Your task to perform on an android device: open app "Instagram" (install if not already installed) and go to login screen Image 0: 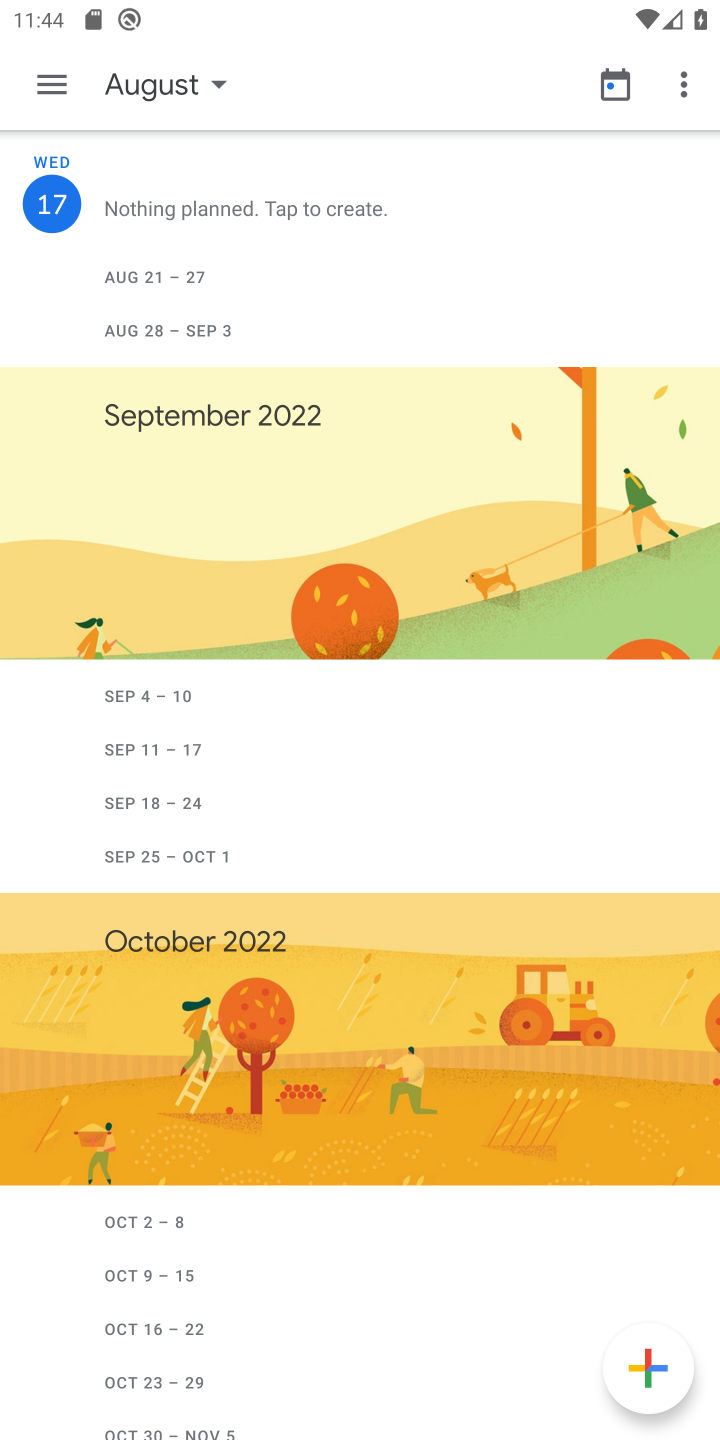
Step 0: press home button
Your task to perform on an android device: open app "Instagram" (install if not already installed) and go to login screen Image 1: 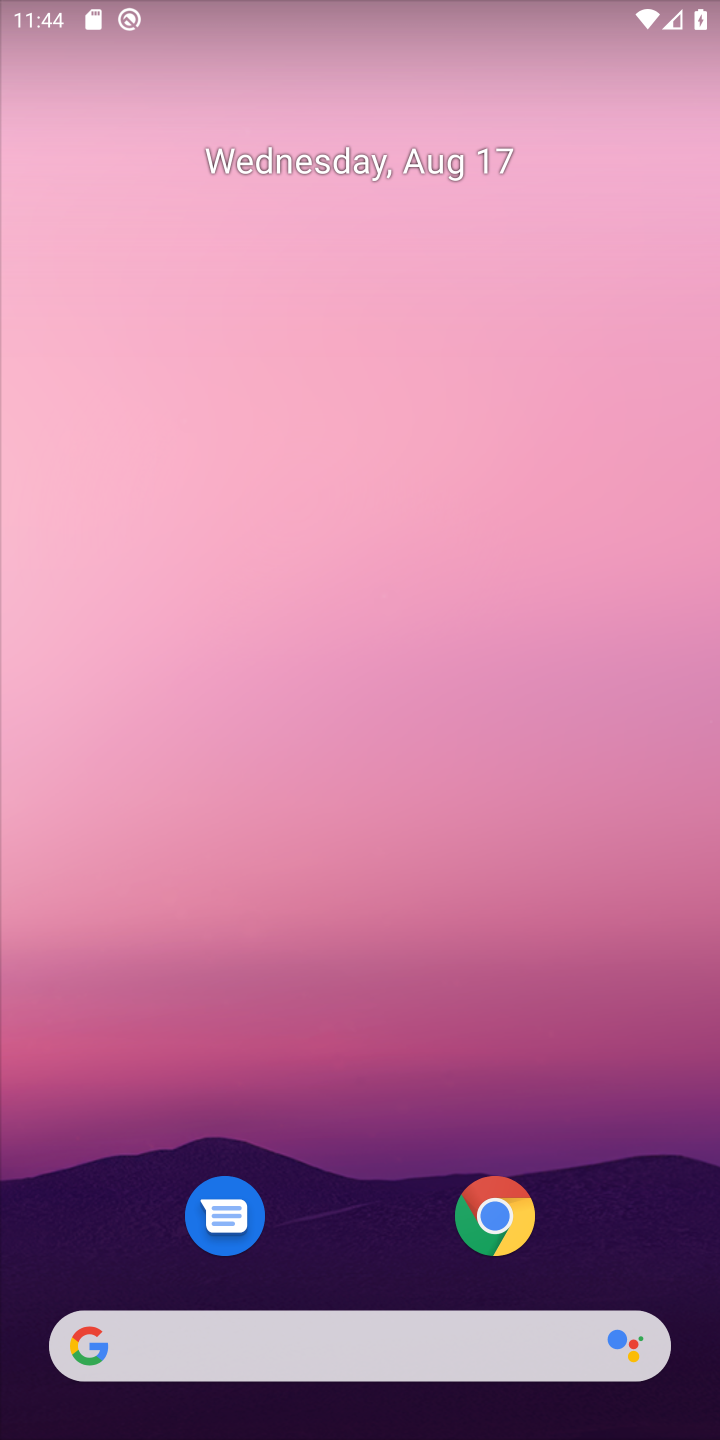
Step 1: drag from (453, 1147) to (378, 259)
Your task to perform on an android device: open app "Instagram" (install if not already installed) and go to login screen Image 2: 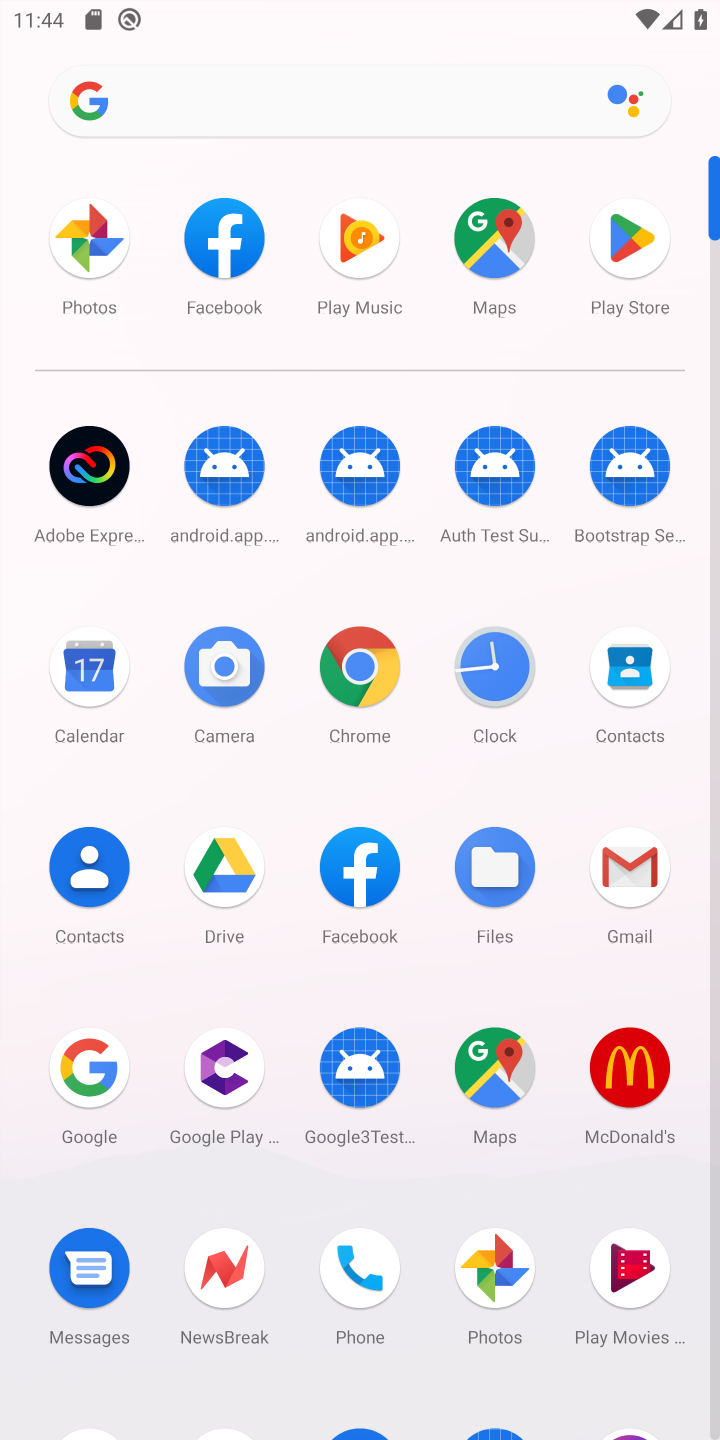
Step 2: click (621, 244)
Your task to perform on an android device: open app "Instagram" (install if not already installed) and go to login screen Image 3: 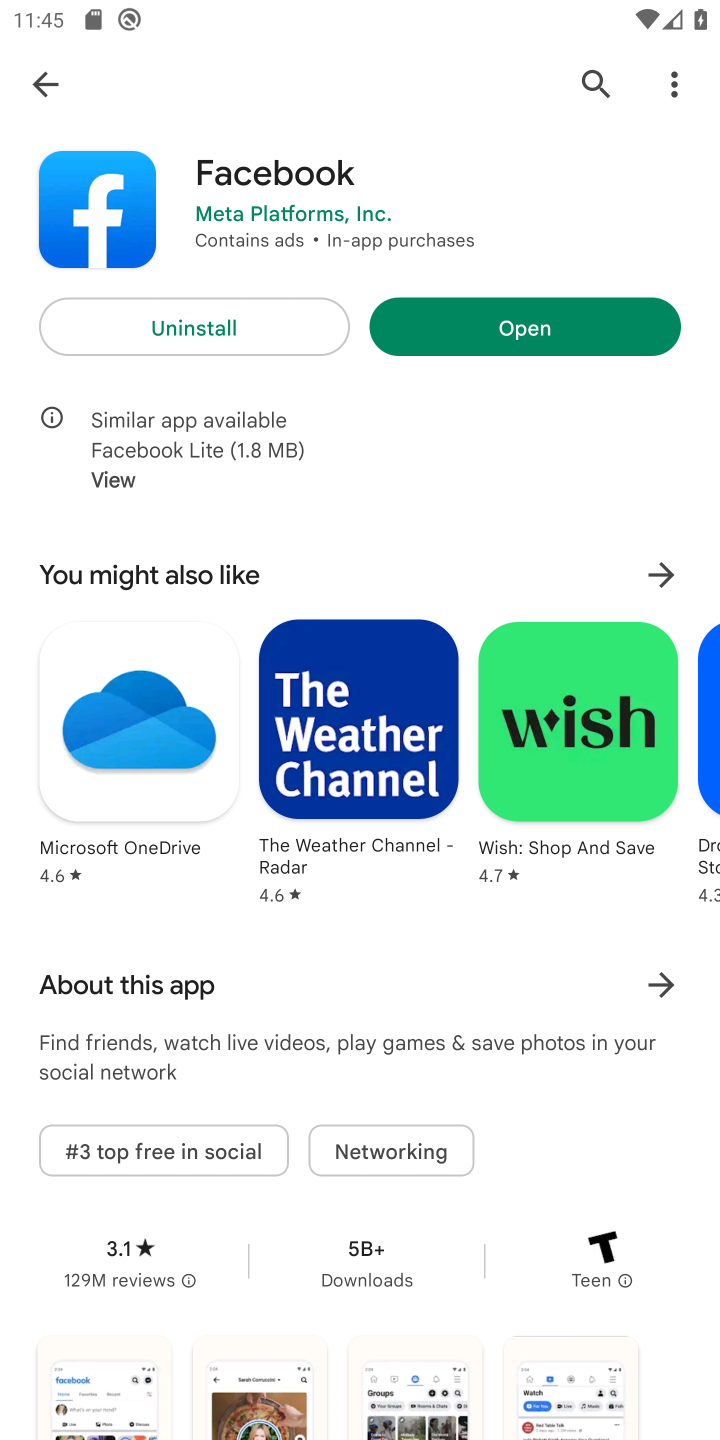
Step 3: click (577, 88)
Your task to perform on an android device: open app "Instagram" (install if not already installed) and go to login screen Image 4: 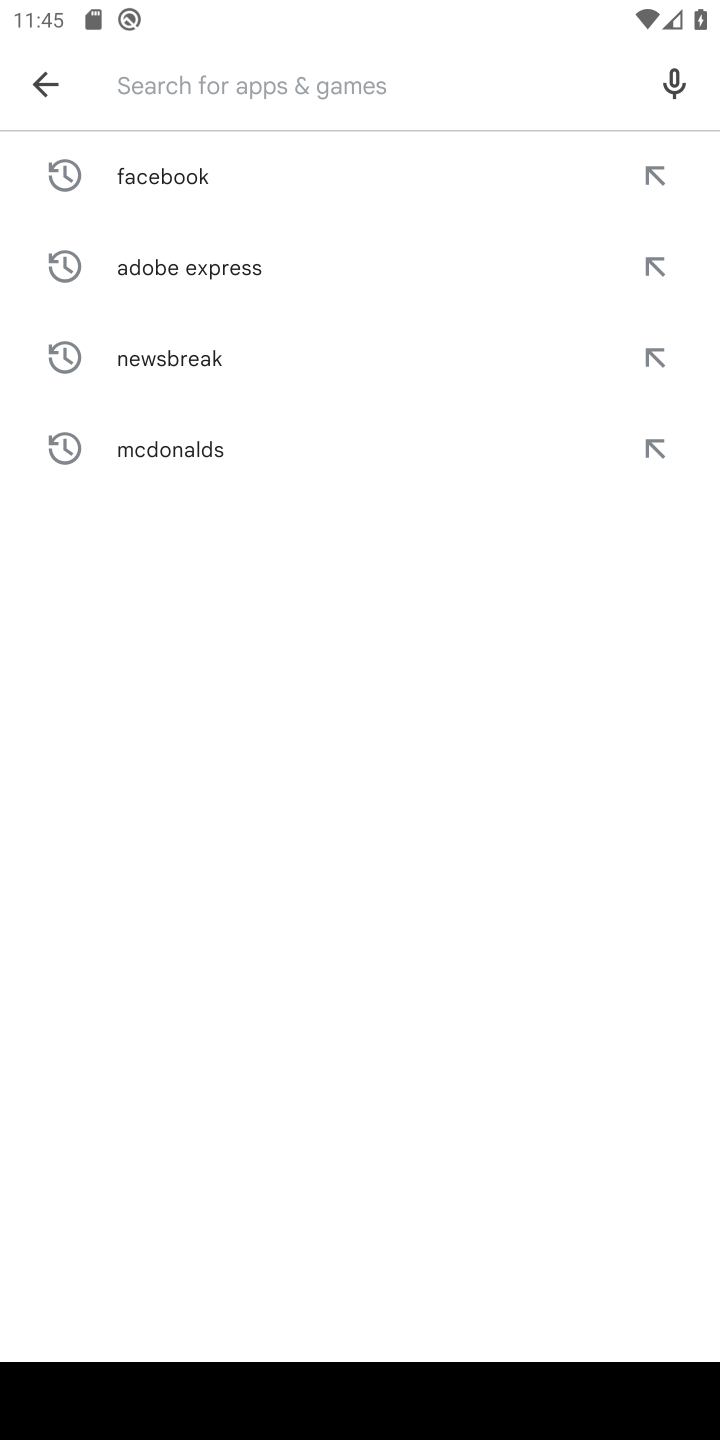
Step 4: type "instagram"
Your task to perform on an android device: open app "Instagram" (install if not already installed) and go to login screen Image 5: 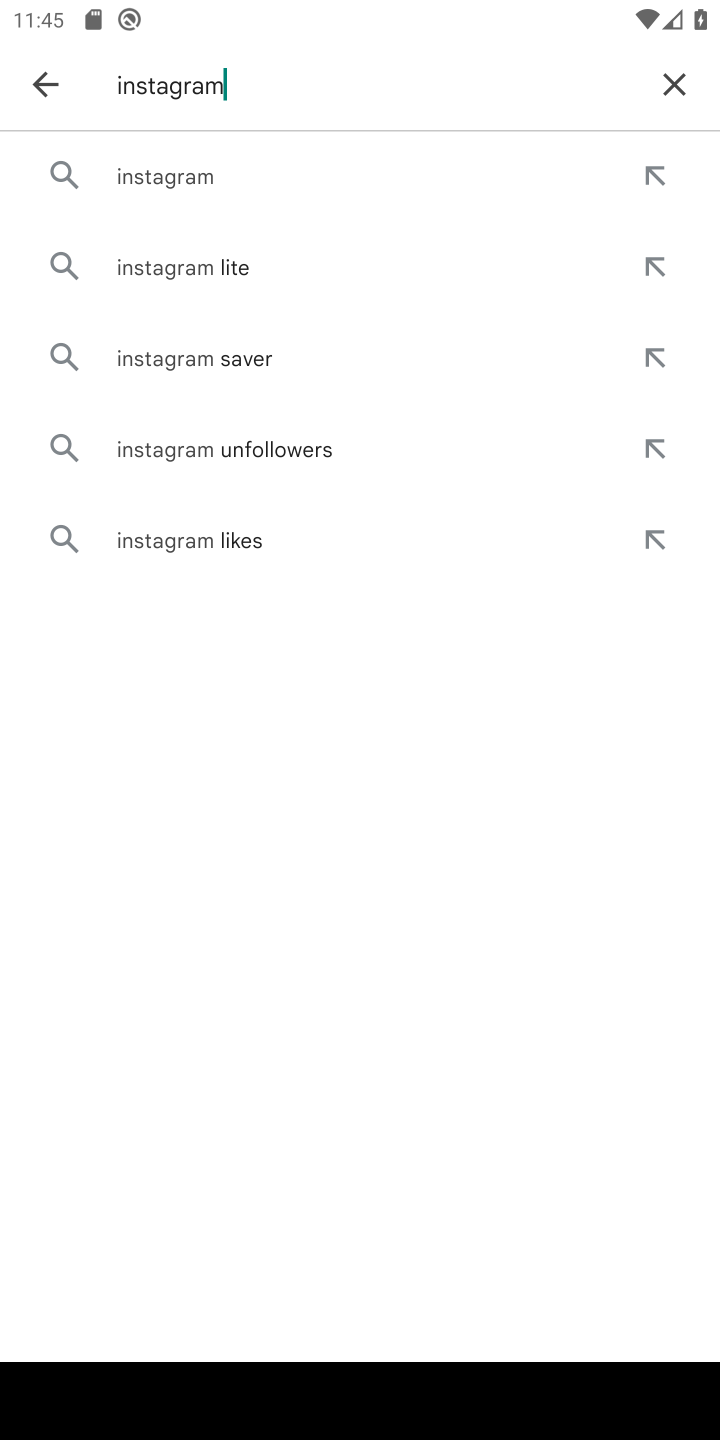
Step 5: click (219, 178)
Your task to perform on an android device: open app "Instagram" (install if not already installed) and go to login screen Image 6: 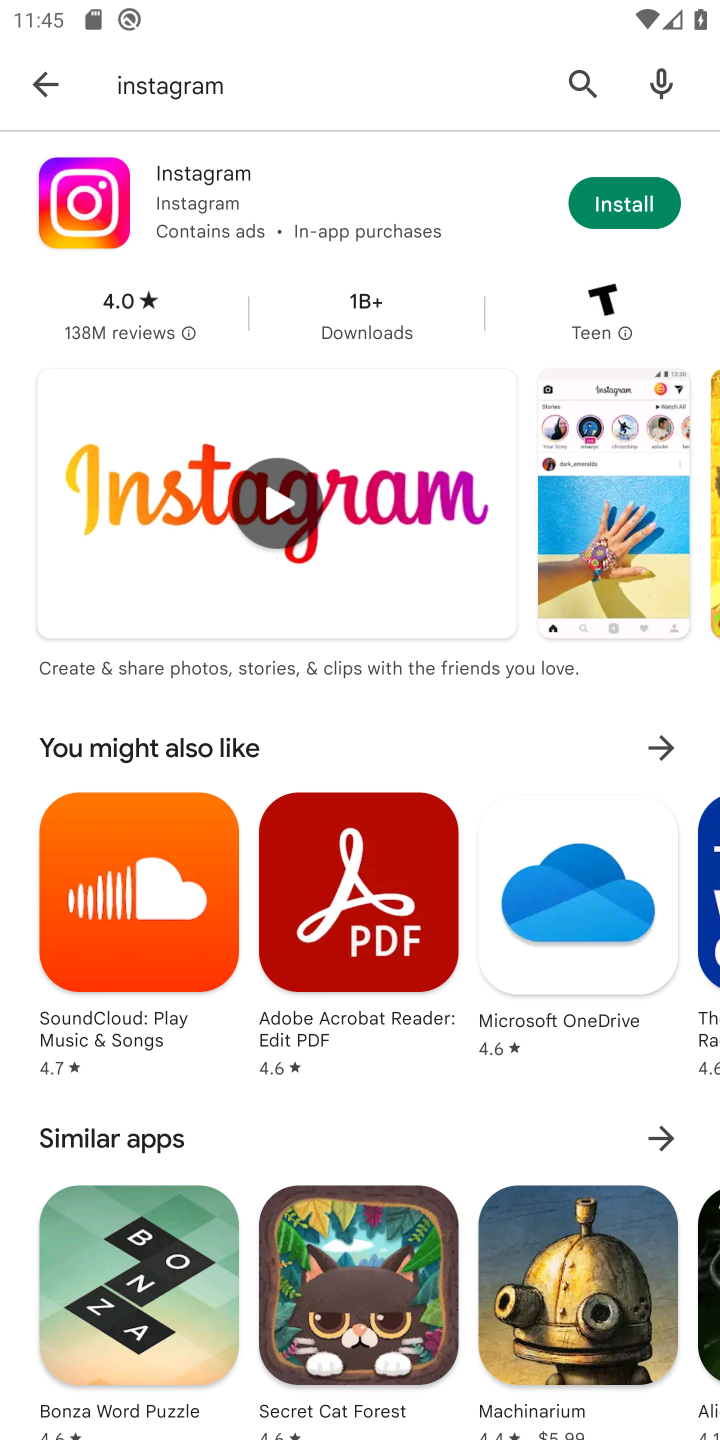
Step 6: click (615, 212)
Your task to perform on an android device: open app "Instagram" (install if not already installed) and go to login screen Image 7: 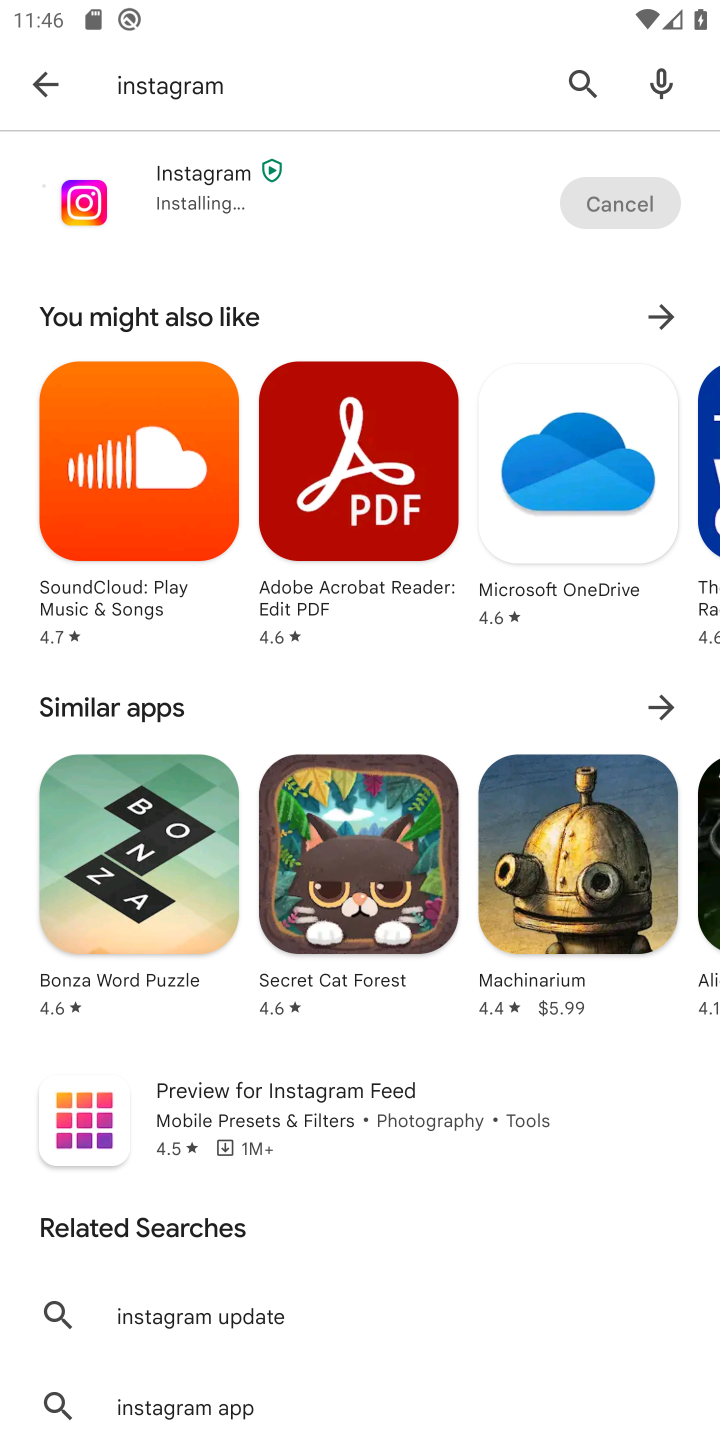
Step 7: click (408, 194)
Your task to perform on an android device: open app "Instagram" (install if not already installed) and go to login screen Image 8: 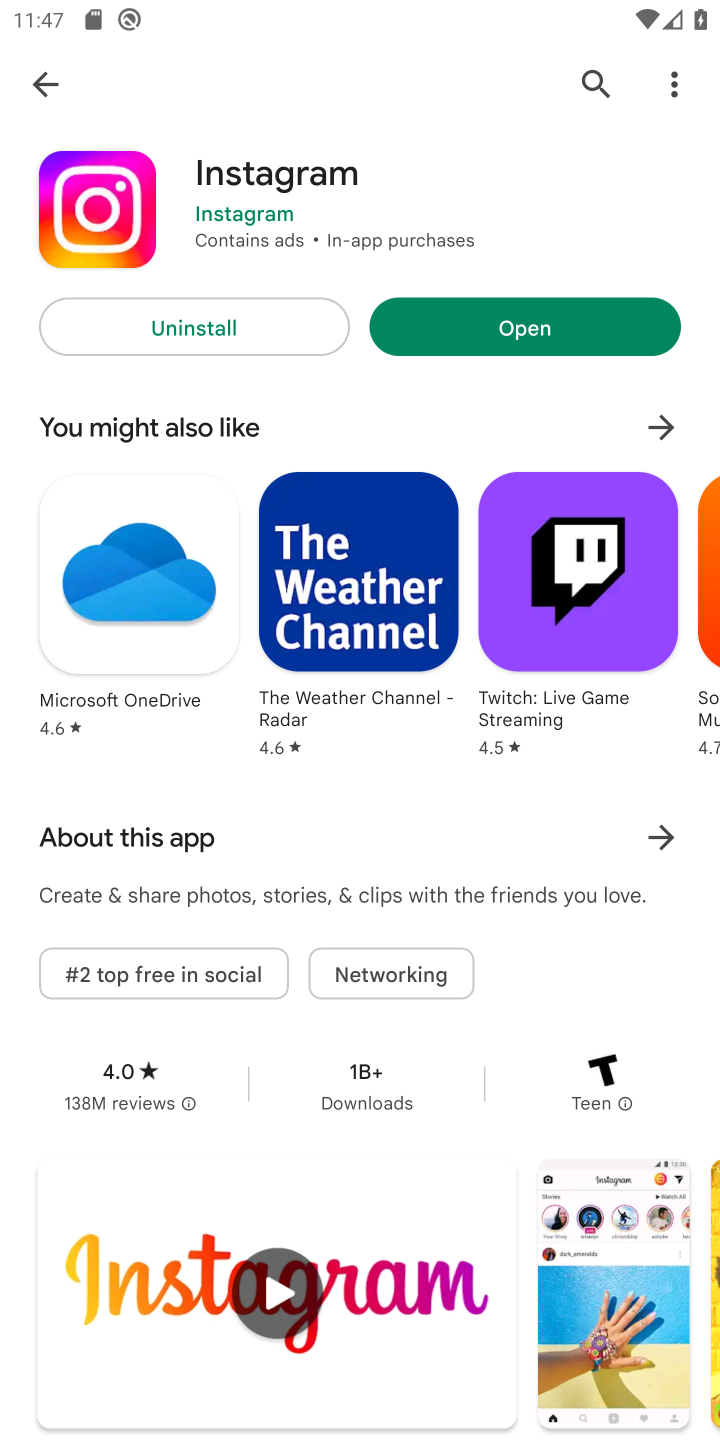
Step 8: click (496, 331)
Your task to perform on an android device: open app "Instagram" (install if not already installed) and go to login screen Image 9: 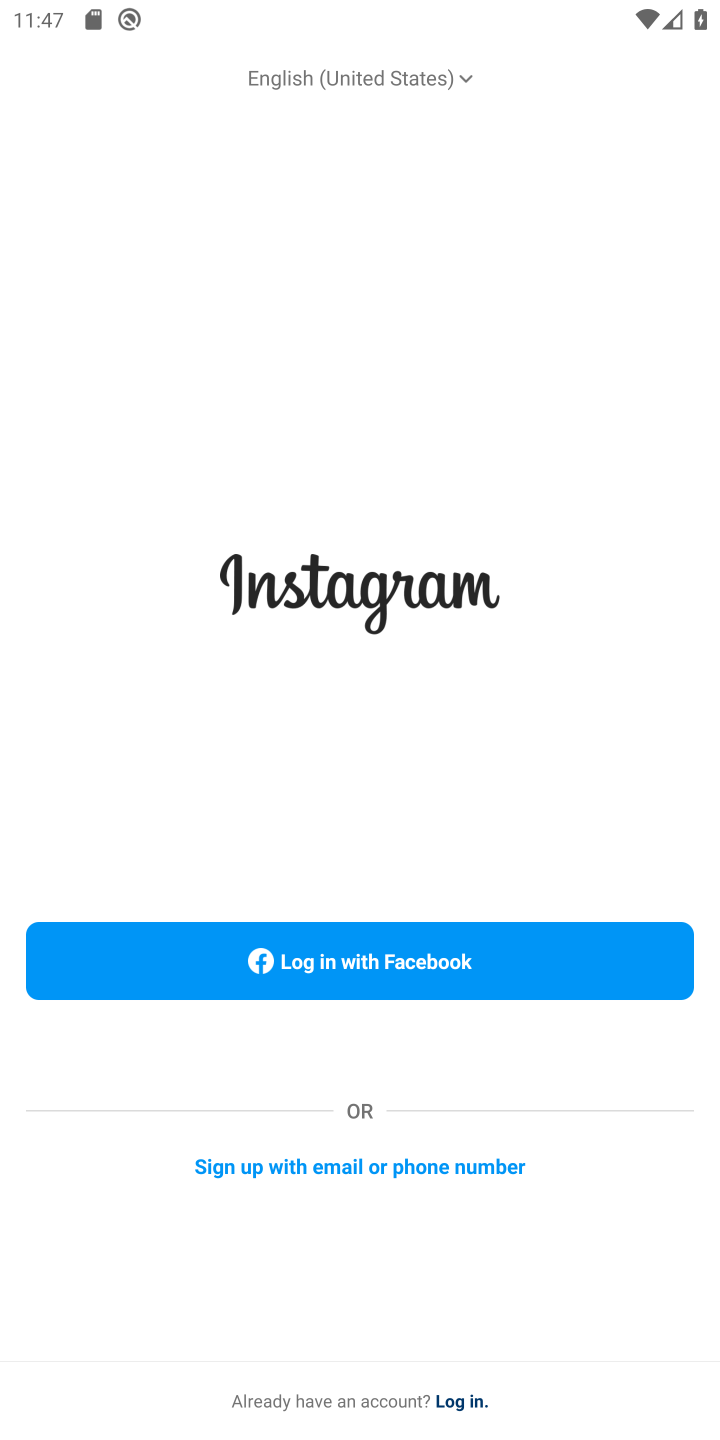
Step 9: click (461, 1400)
Your task to perform on an android device: open app "Instagram" (install if not already installed) and go to login screen Image 10: 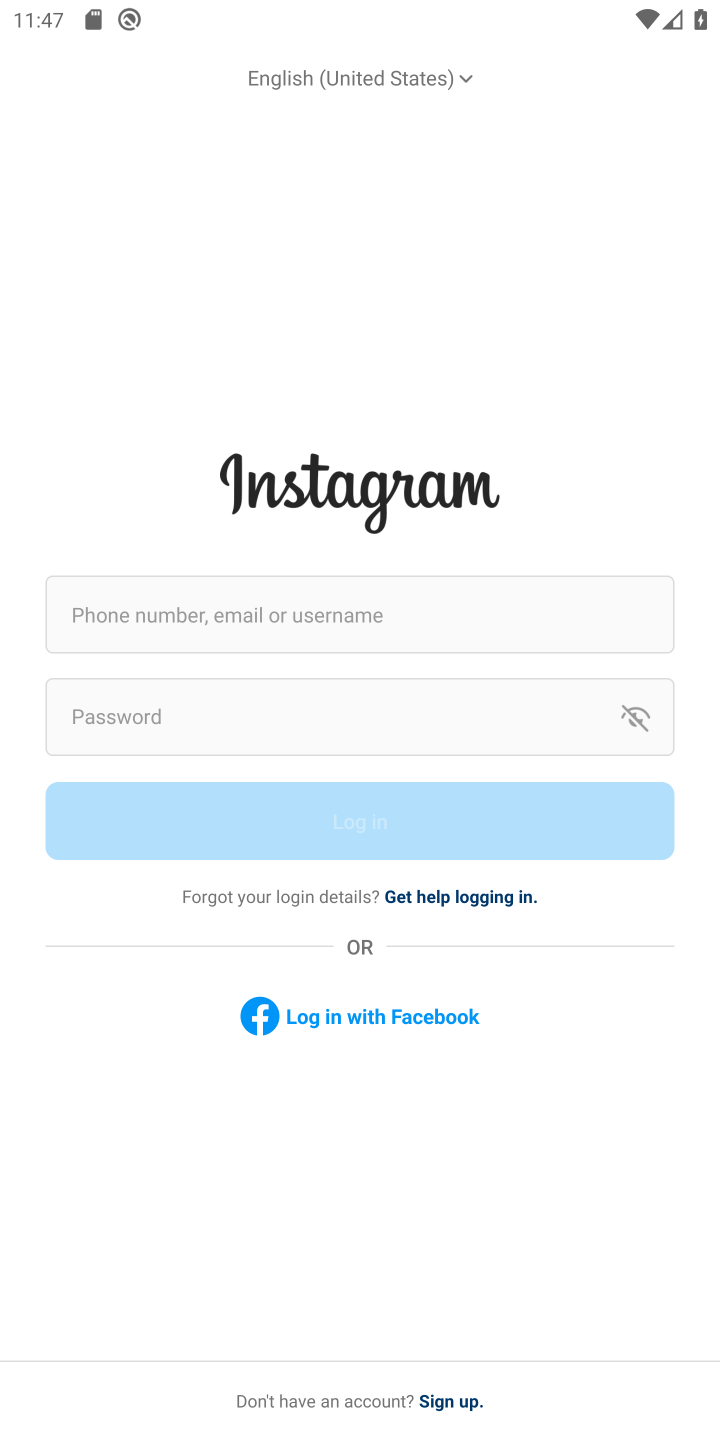
Step 10: task complete